Your task to perform on an android device: all mails in gmail Image 0: 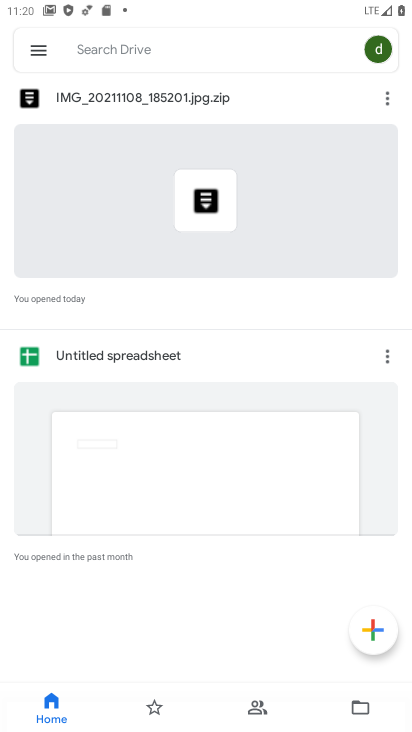
Step 0: press home button
Your task to perform on an android device: all mails in gmail Image 1: 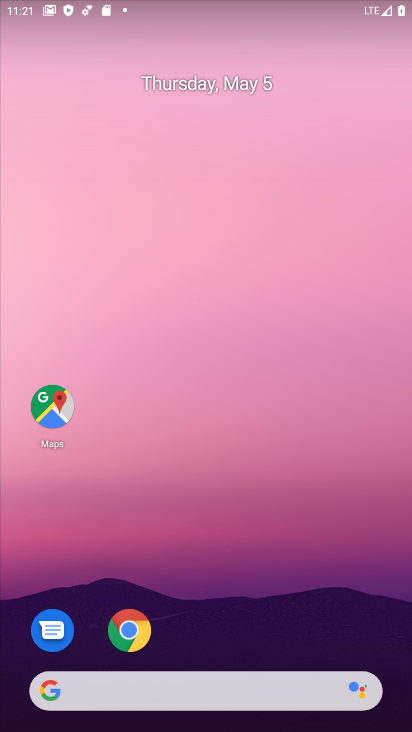
Step 1: drag from (280, 617) to (246, 139)
Your task to perform on an android device: all mails in gmail Image 2: 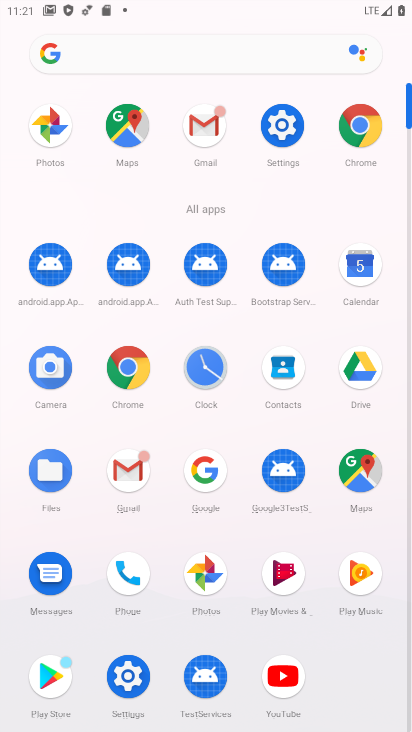
Step 2: click (137, 483)
Your task to perform on an android device: all mails in gmail Image 3: 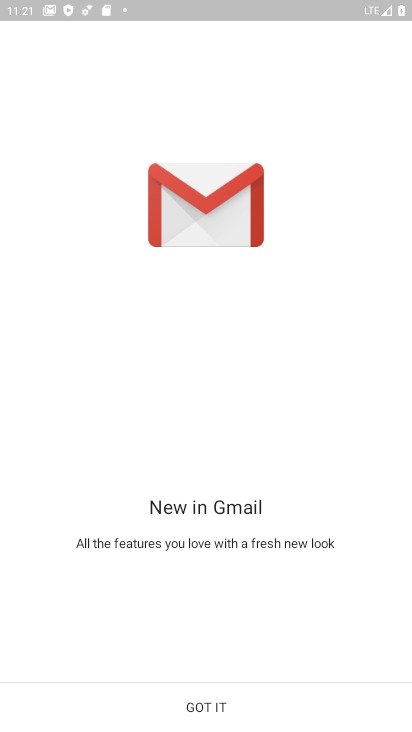
Step 3: click (189, 721)
Your task to perform on an android device: all mails in gmail Image 4: 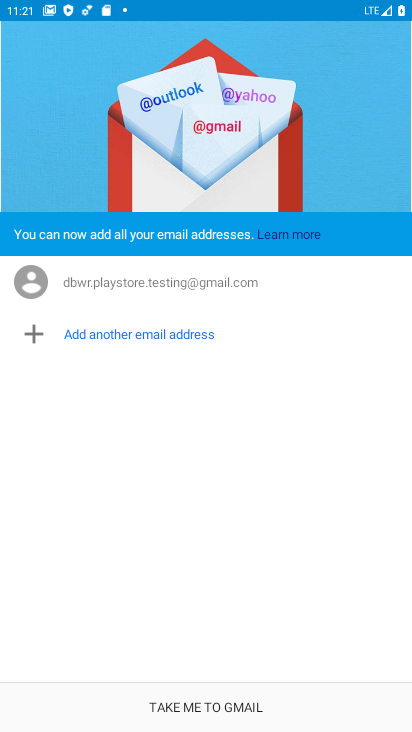
Step 4: click (213, 704)
Your task to perform on an android device: all mails in gmail Image 5: 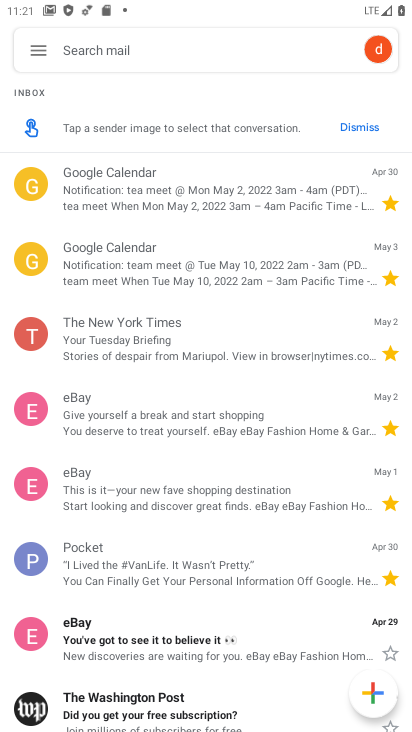
Step 5: click (39, 49)
Your task to perform on an android device: all mails in gmail Image 6: 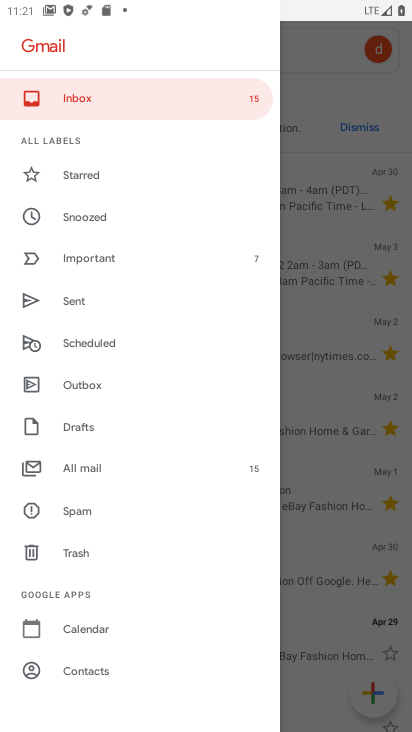
Step 6: click (111, 467)
Your task to perform on an android device: all mails in gmail Image 7: 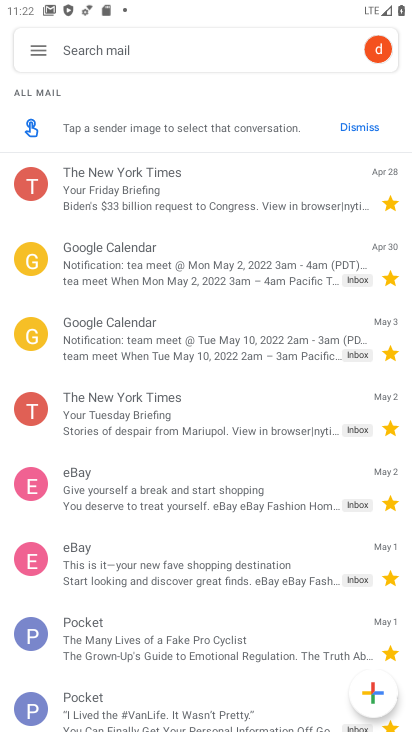
Step 7: task complete